Your task to perform on an android device: Open Yahoo.com Image 0: 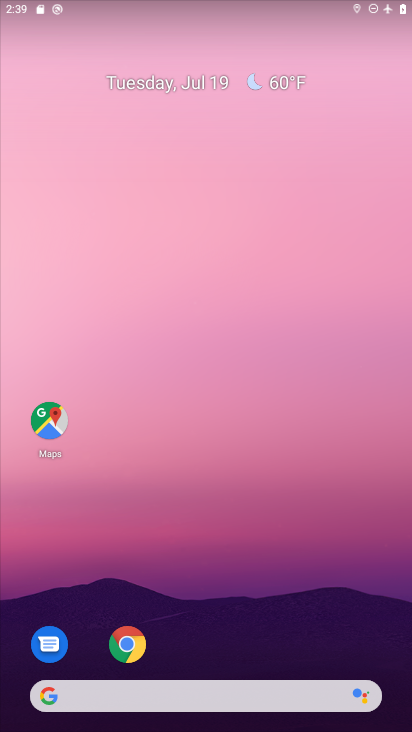
Step 0: drag from (206, 664) to (197, 50)
Your task to perform on an android device: Open Yahoo.com Image 1: 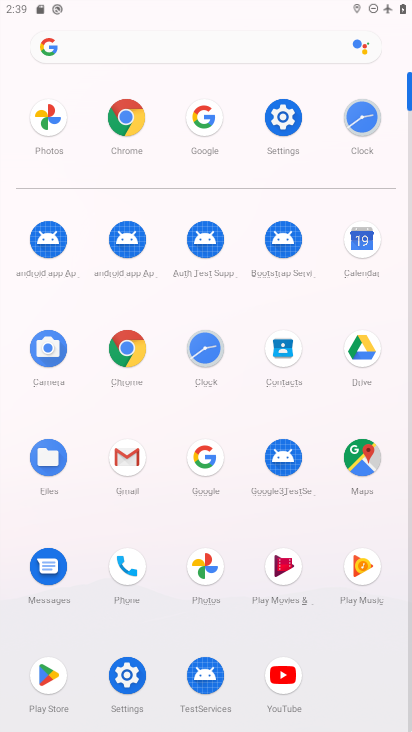
Step 1: click (197, 462)
Your task to perform on an android device: Open Yahoo.com Image 2: 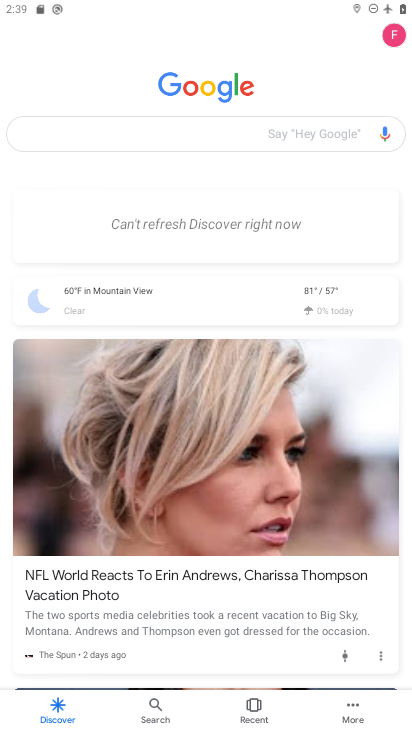
Step 2: press back button
Your task to perform on an android device: Open Yahoo.com Image 3: 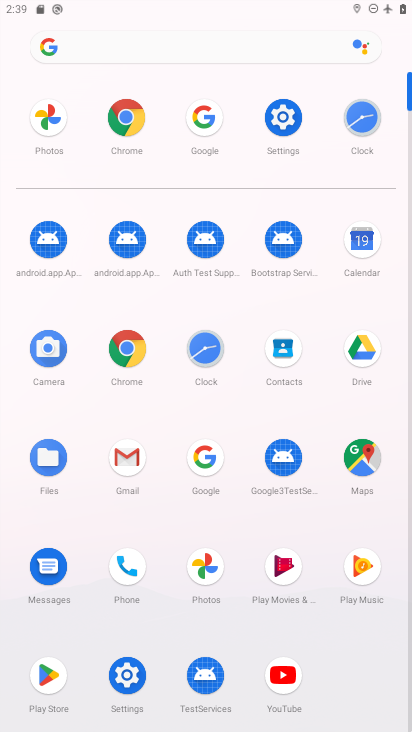
Step 3: click (140, 348)
Your task to perform on an android device: Open Yahoo.com Image 4: 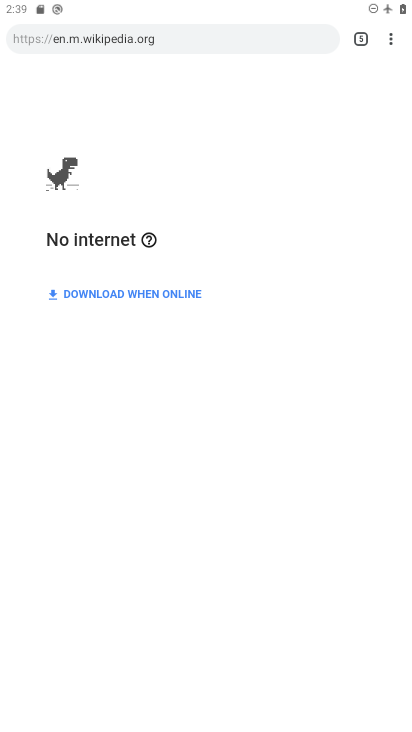
Step 4: click (364, 34)
Your task to perform on an android device: Open Yahoo.com Image 5: 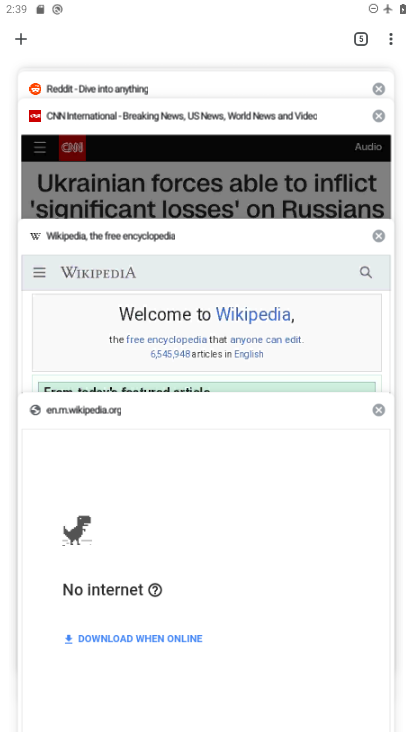
Step 5: click (28, 42)
Your task to perform on an android device: Open Yahoo.com Image 6: 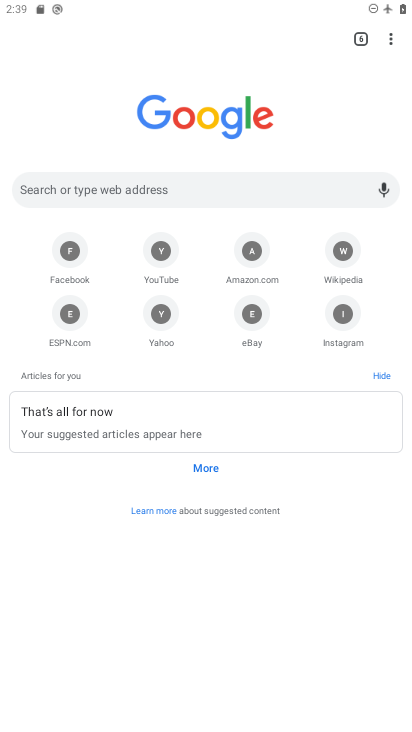
Step 6: drag from (153, 244) to (161, 134)
Your task to perform on an android device: Open Yahoo.com Image 7: 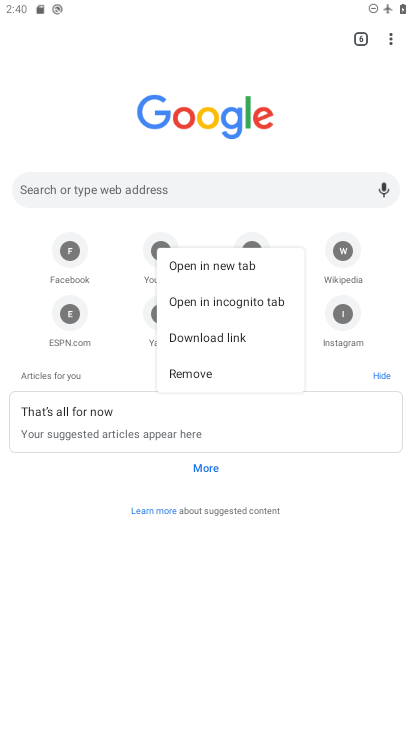
Step 7: click (151, 314)
Your task to perform on an android device: Open Yahoo.com Image 8: 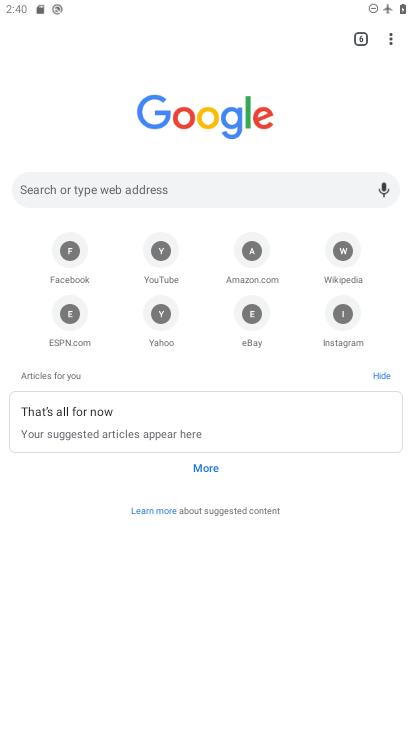
Step 8: task complete